Your task to perform on an android device: turn on bluetooth scan Image 0: 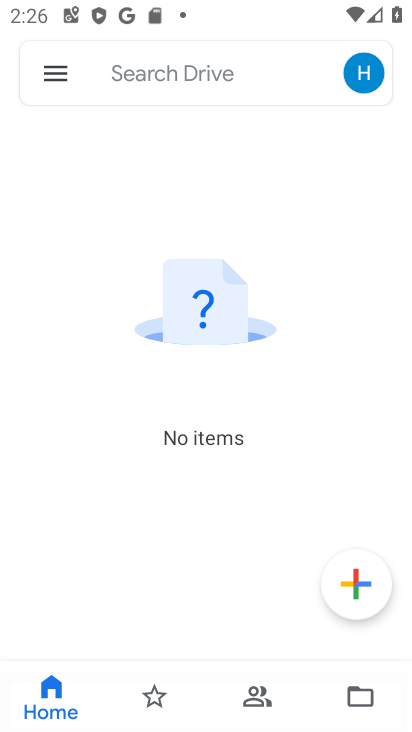
Step 0: press home button
Your task to perform on an android device: turn on bluetooth scan Image 1: 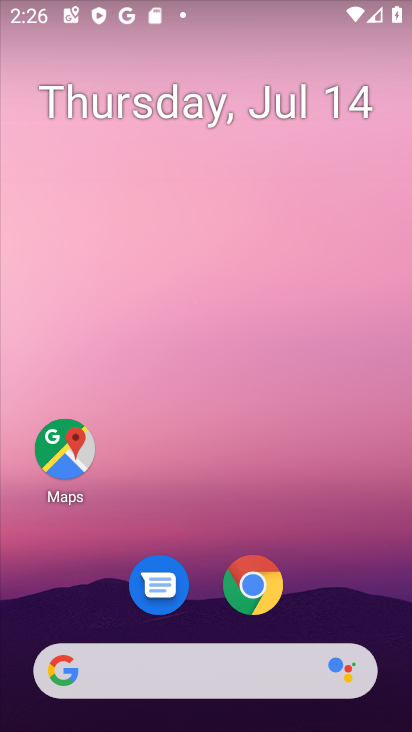
Step 1: drag from (313, 578) to (279, 69)
Your task to perform on an android device: turn on bluetooth scan Image 2: 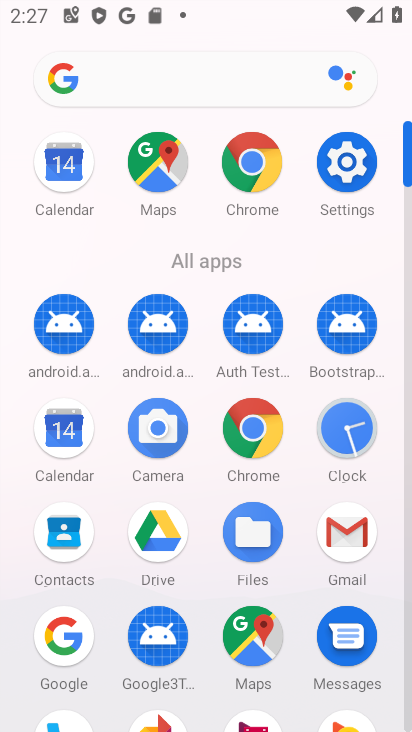
Step 2: click (338, 158)
Your task to perform on an android device: turn on bluetooth scan Image 3: 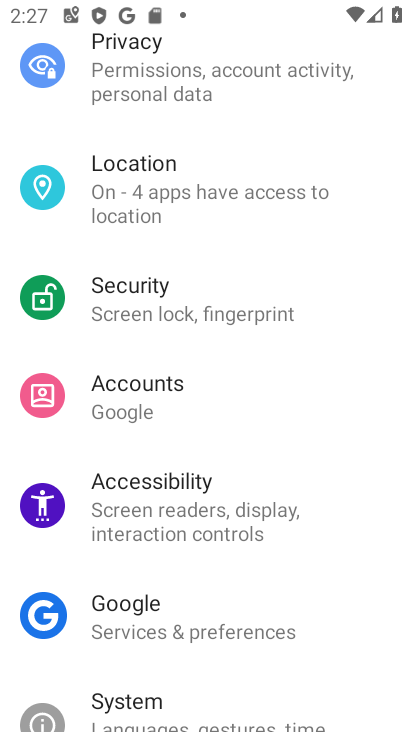
Step 3: click (231, 190)
Your task to perform on an android device: turn on bluetooth scan Image 4: 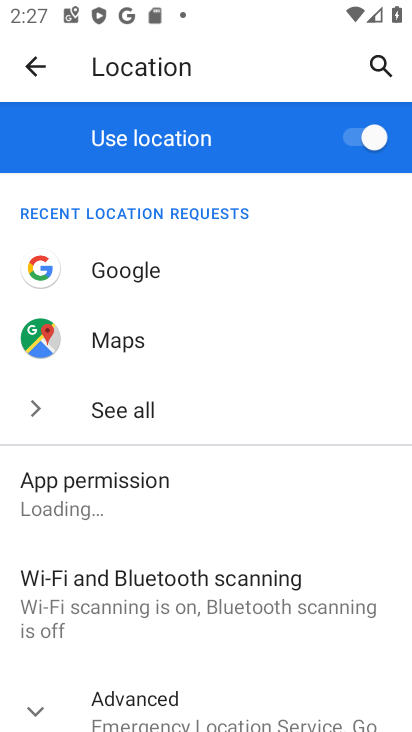
Step 4: click (263, 610)
Your task to perform on an android device: turn on bluetooth scan Image 5: 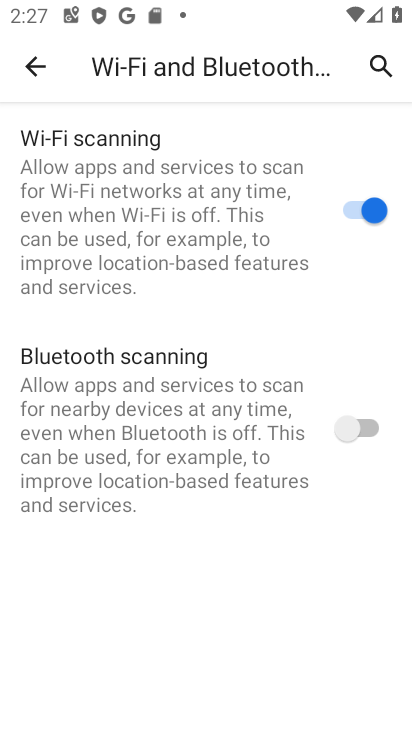
Step 5: click (371, 430)
Your task to perform on an android device: turn on bluetooth scan Image 6: 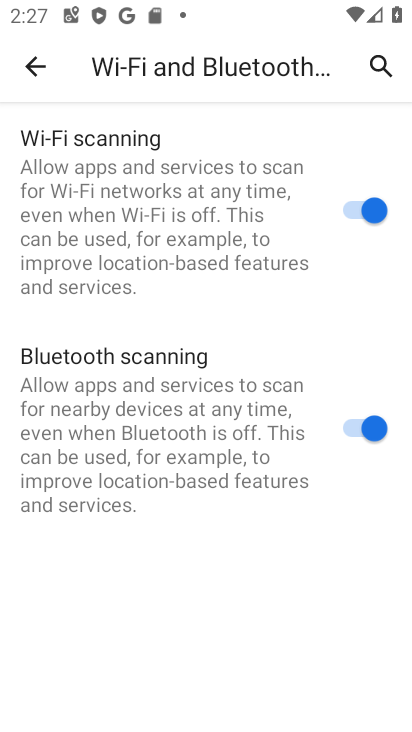
Step 6: task complete